Your task to perform on an android device: set the timer Image 0: 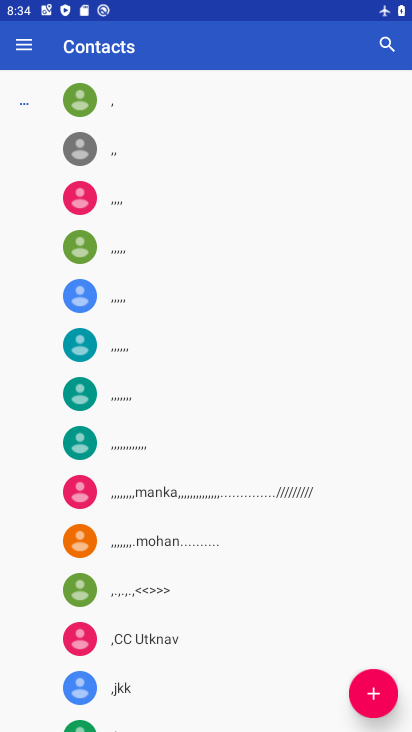
Step 0: press home button
Your task to perform on an android device: set the timer Image 1: 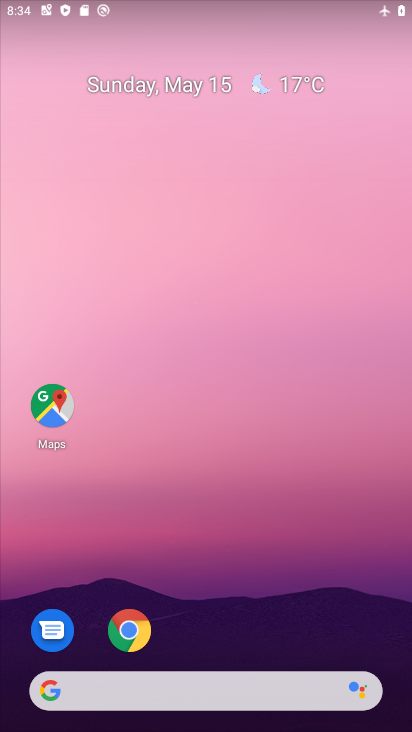
Step 1: drag from (236, 556) to (177, 134)
Your task to perform on an android device: set the timer Image 2: 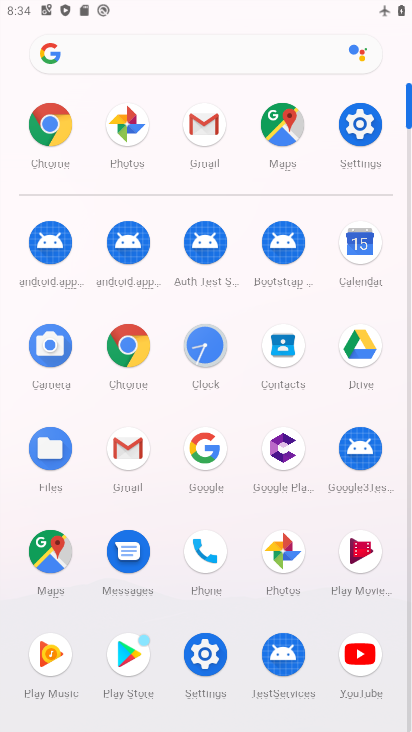
Step 2: click (210, 353)
Your task to perform on an android device: set the timer Image 3: 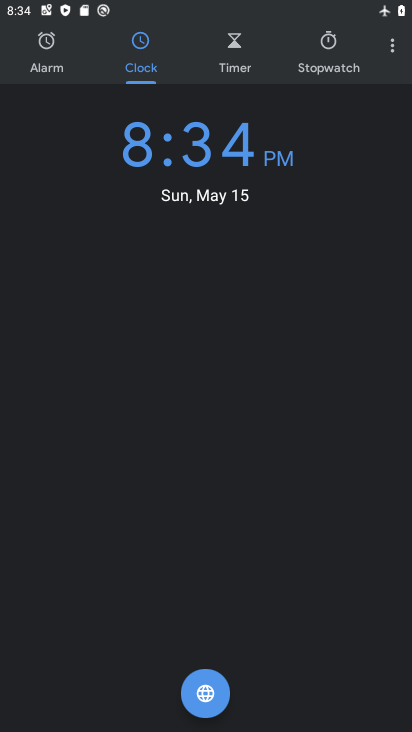
Step 3: click (245, 57)
Your task to perform on an android device: set the timer Image 4: 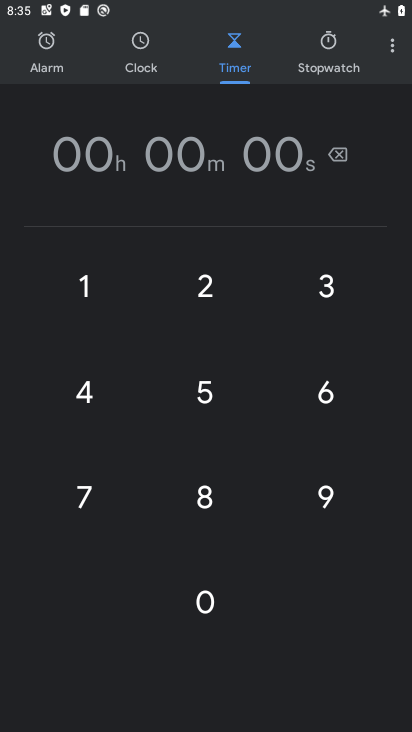
Step 4: click (102, 276)
Your task to perform on an android device: set the timer Image 5: 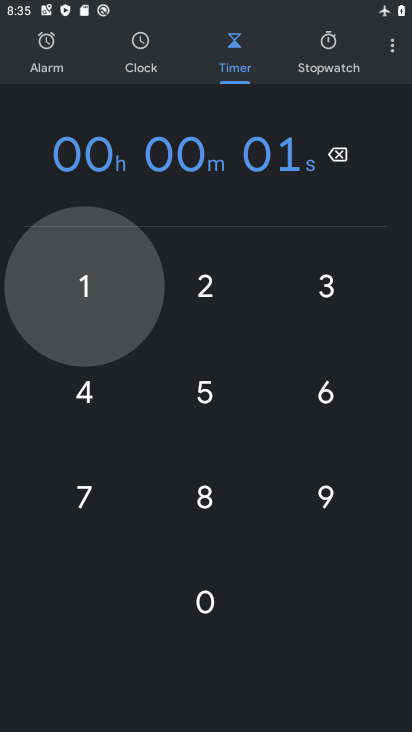
Step 5: click (212, 289)
Your task to perform on an android device: set the timer Image 6: 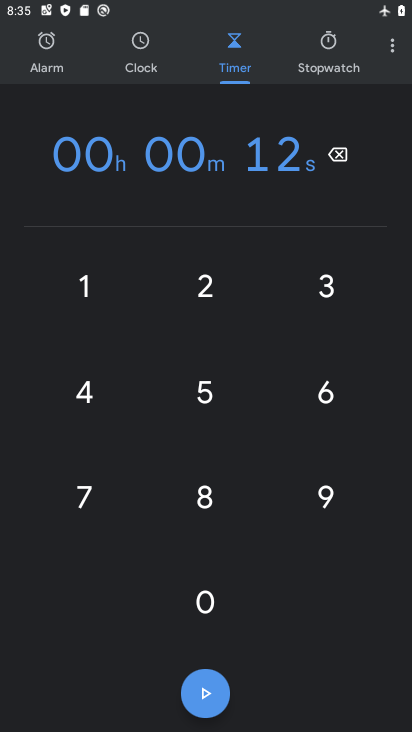
Step 6: click (85, 326)
Your task to perform on an android device: set the timer Image 7: 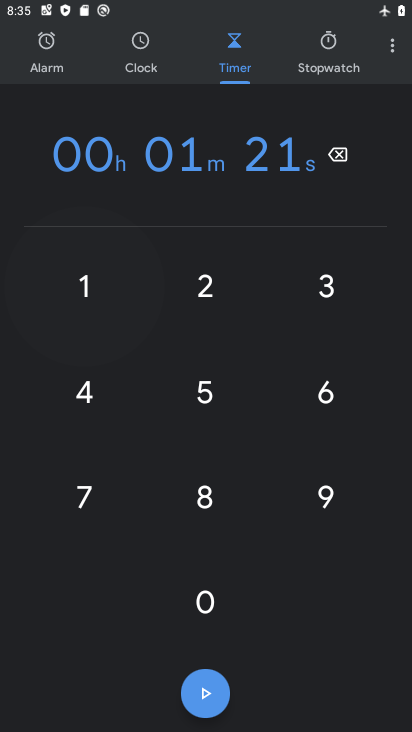
Step 7: drag from (108, 380) to (203, 300)
Your task to perform on an android device: set the timer Image 8: 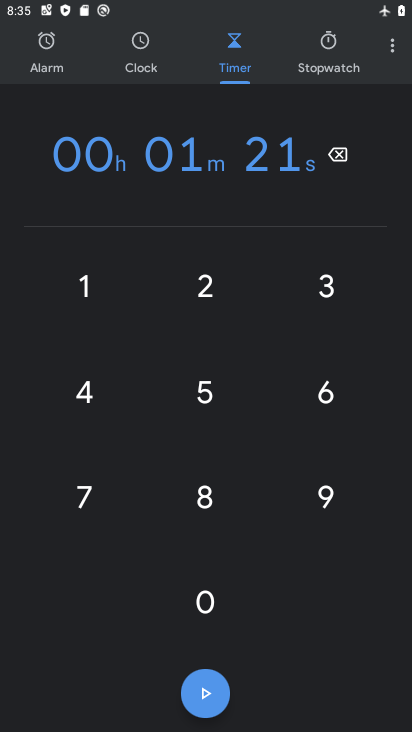
Step 8: click (186, 383)
Your task to perform on an android device: set the timer Image 9: 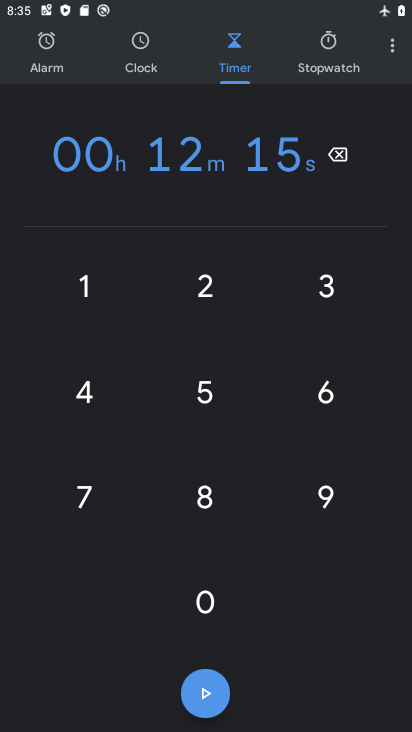
Step 9: click (197, 311)
Your task to perform on an android device: set the timer Image 10: 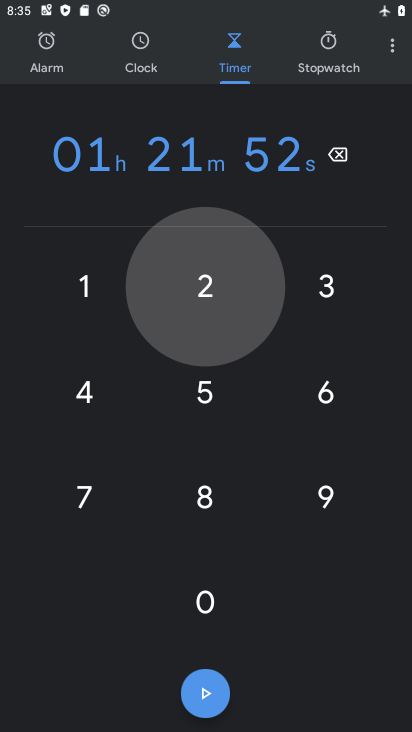
Step 10: click (205, 348)
Your task to perform on an android device: set the timer Image 11: 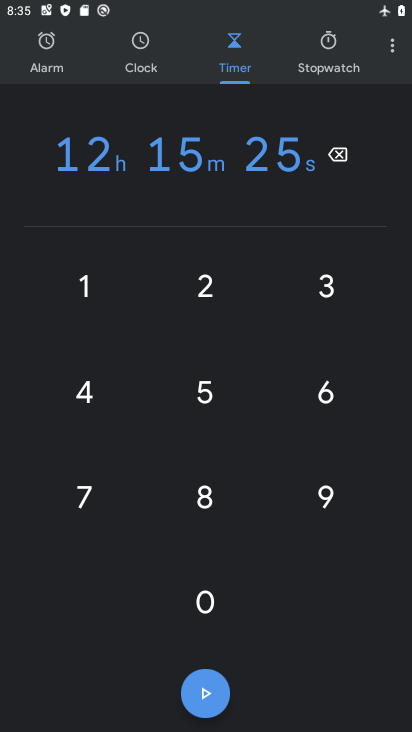
Step 11: click (186, 714)
Your task to perform on an android device: set the timer Image 12: 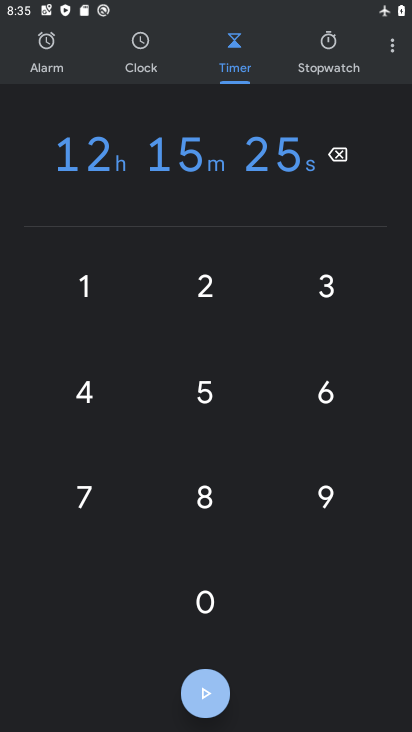
Step 12: click (199, 703)
Your task to perform on an android device: set the timer Image 13: 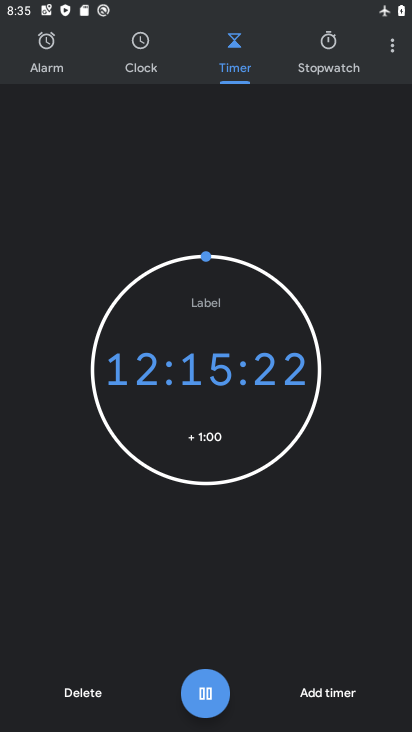
Step 13: task complete